Your task to perform on an android device: Toggle the flashlight Image 0: 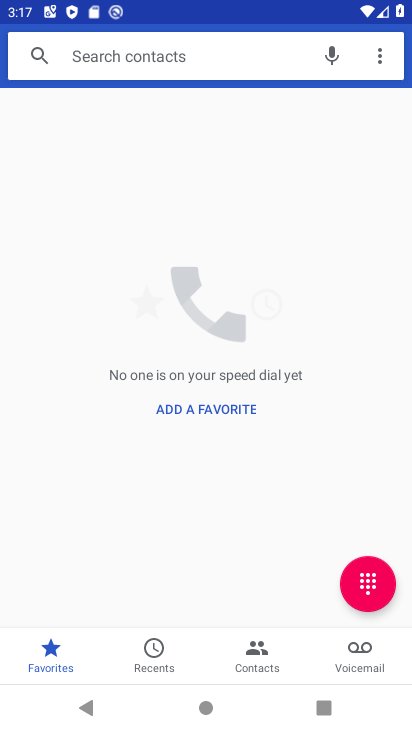
Step 0: press home button
Your task to perform on an android device: Toggle the flashlight Image 1: 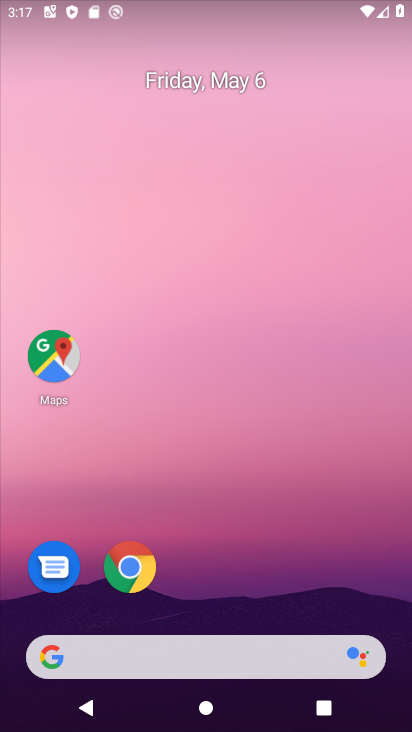
Step 1: drag from (208, 594) to (301, 180)
Your task to perform on an android device: Toggle the flashlight Image 2: 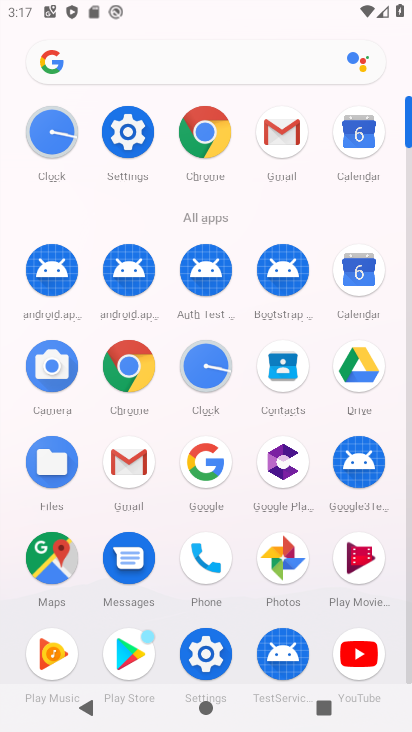
Step 2: click (208, 659)
Your task to perform on an android device: Toggle the flashlight Image 3: 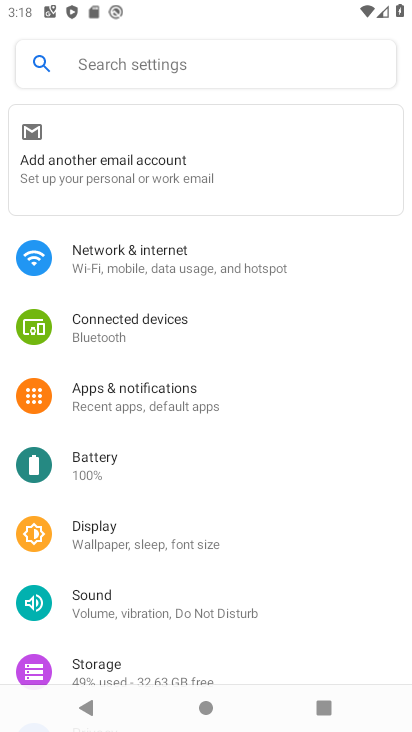
Step 3: task complete